Your task to perform on an android device: turn off improve location accuracy Image 0: 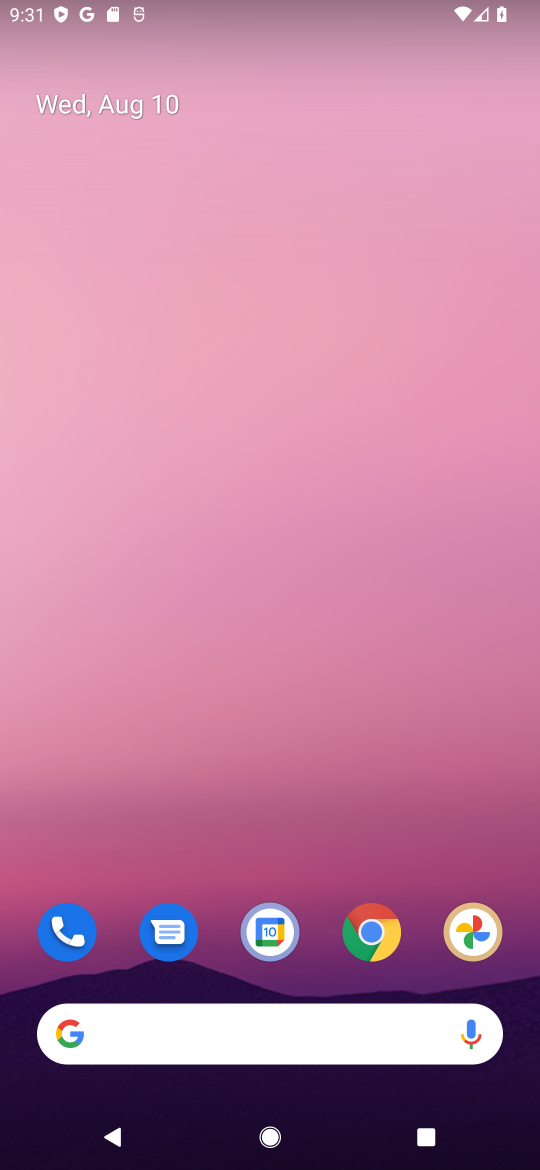
Step 0: drag from (298, 844) to (326, 39)
Your task to perform on an android device: turn off improve location accuracy Image 1: 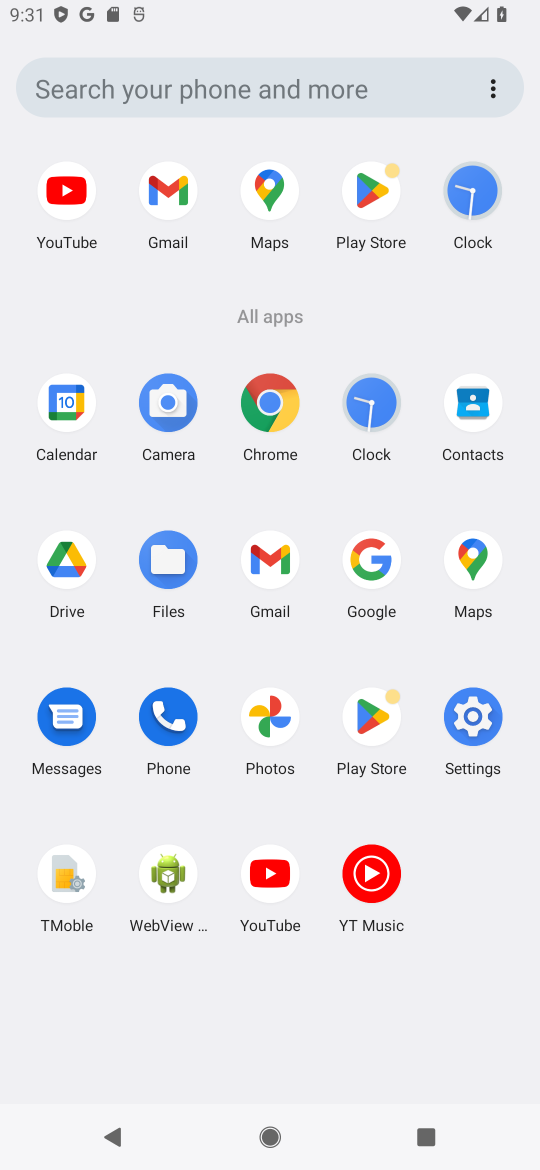
Step 1: click (476, 713)
Your task to perform on an android device: turn off improve location accuracy Image 2: 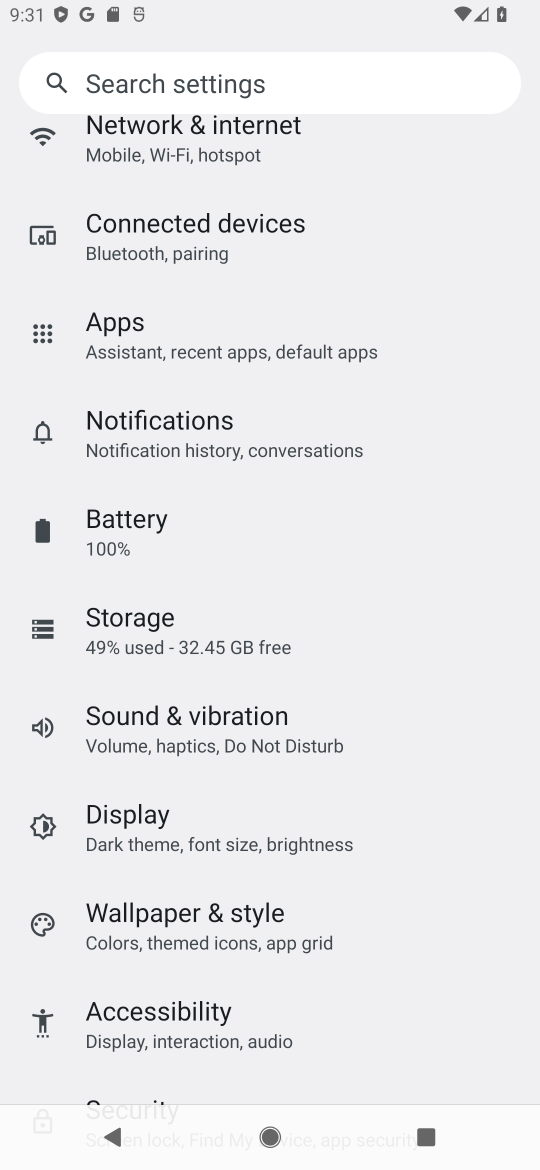
Step 2: drag from (412, 921) to (404, 528)
Your task to perform on an android device: turn off improve location accuracy Image 3: 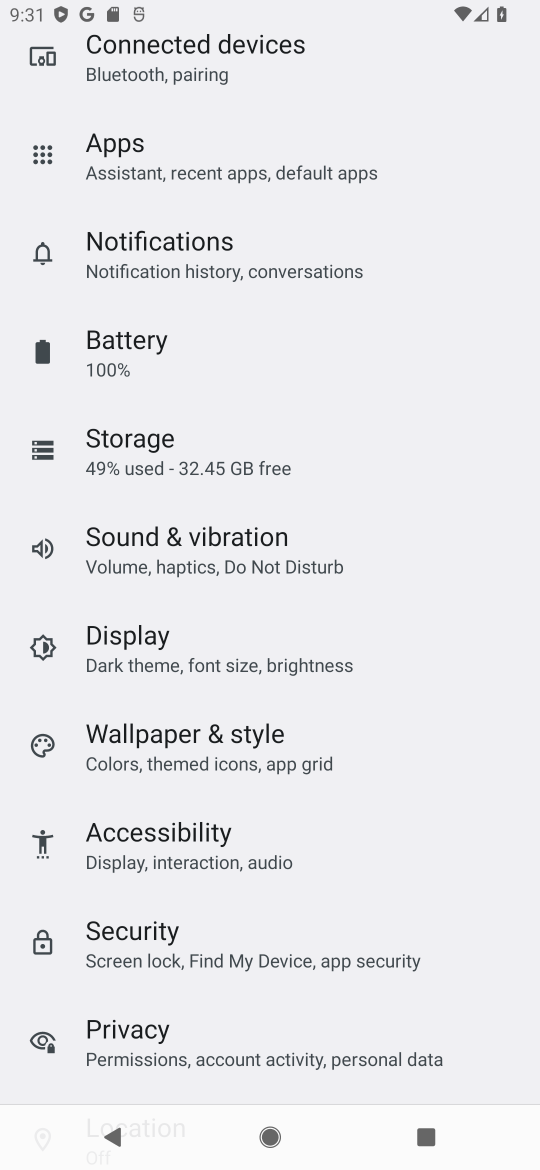
Step 3: drag from (318, 863) to (289, 300)
Your task to perform on an android device: turn off improve location accuracy Image 4: 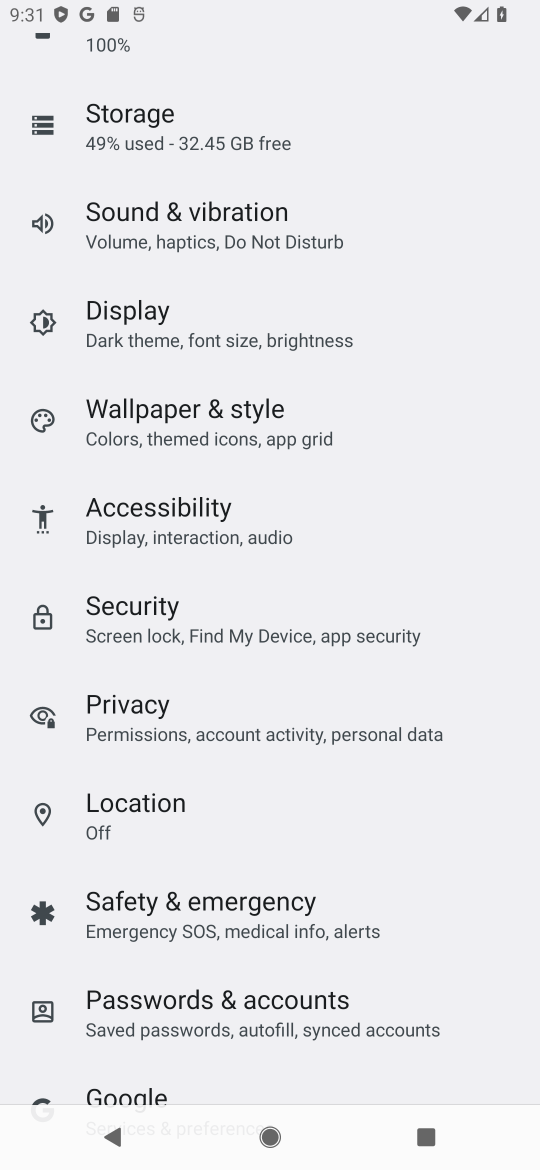
Step 4: click (129, 803)
Your task to perform on an android device: turn off improve location accuracy Image 5: 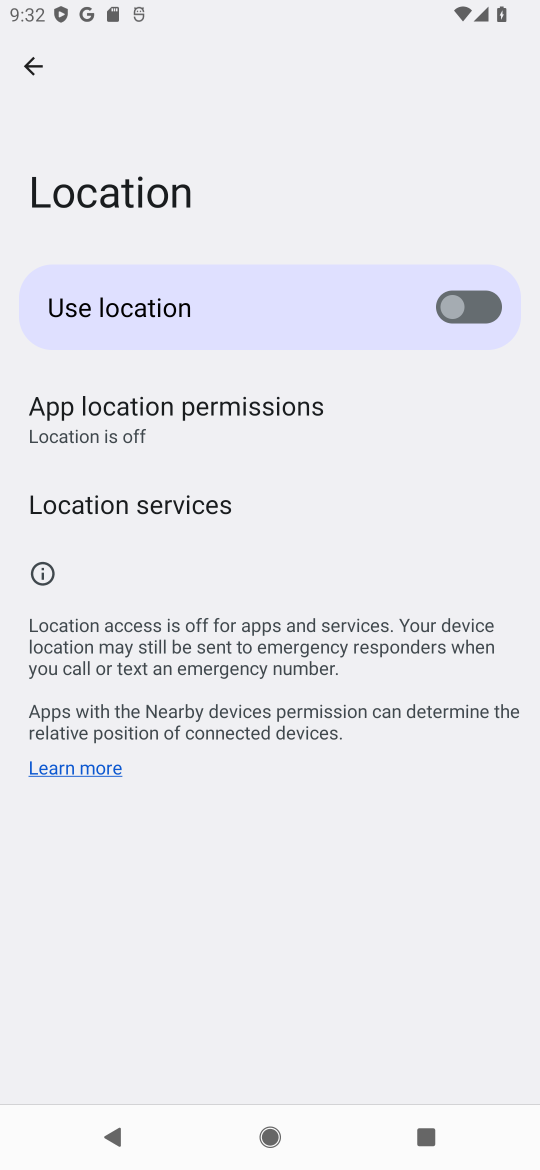
Step 5: click (141, 494)
Your task to perform on an android device: turn off improve location accuracy Image 6: 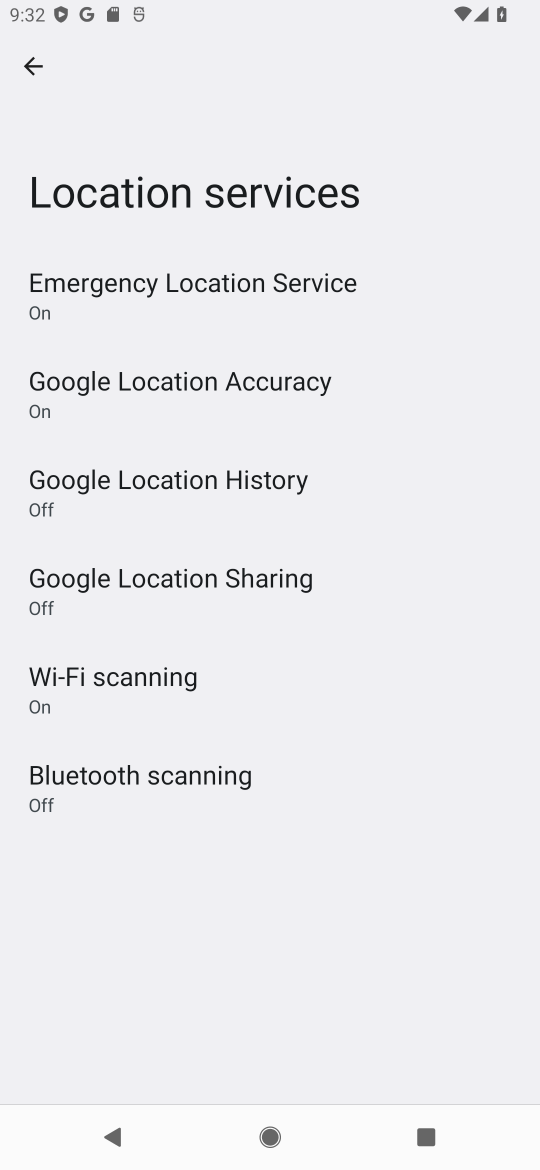
Step 6: click (219, 380)
Your task to perform on an android device: turn off improve location accuracy Image 7: 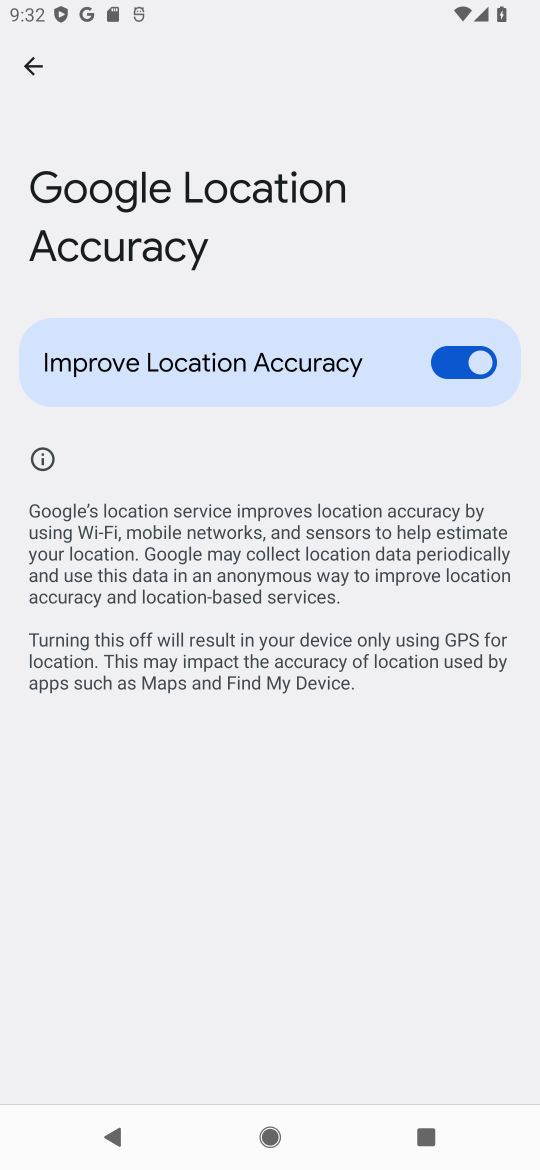
Step 7: click (457, 369)
Your task to perform on an android device: turn off improve location accuracy Image 8: 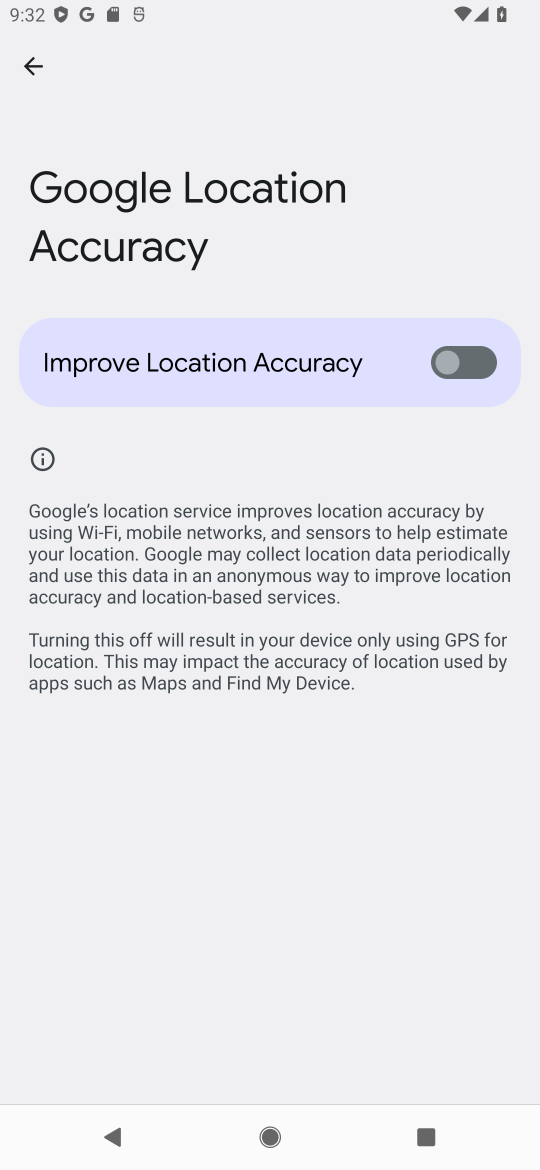
Step 8: task complete